Your task to perform on an android device: Go to Yahoo.com Image 0: 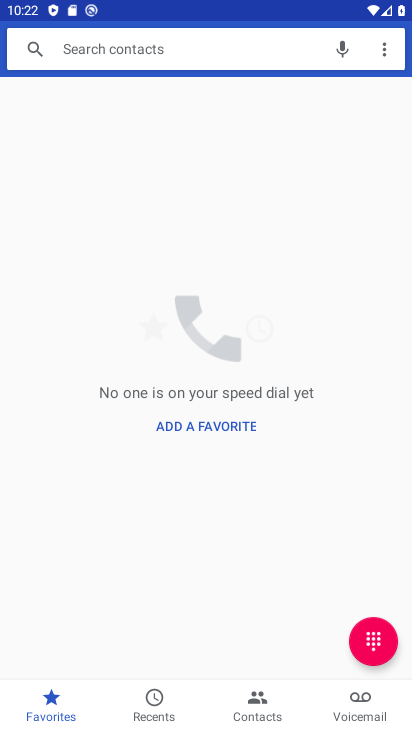
Step 0: press home button
Your task to perform on an android device: Go to Yahoo.com Image 1: 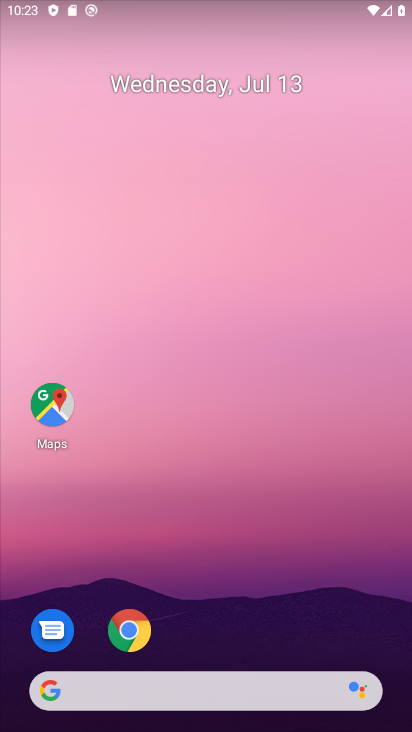
Step 1: click (124, 630)
Your task to perform on an android device: Go to Yahoo.com Image 2: 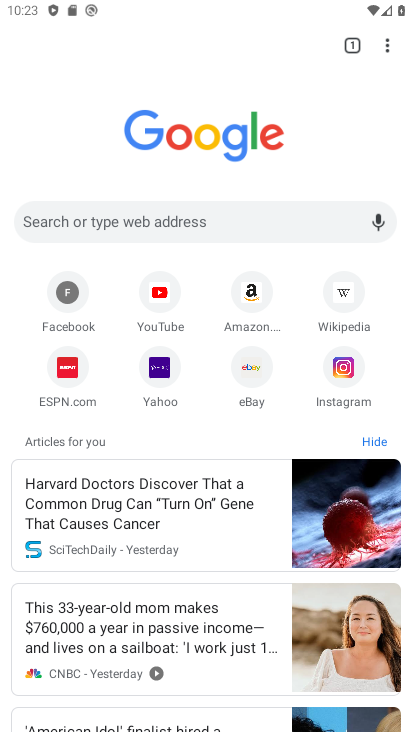
Step 2: click (162, 389)
Your task to perform on an android device: Go to Yahoo.com Image 3: 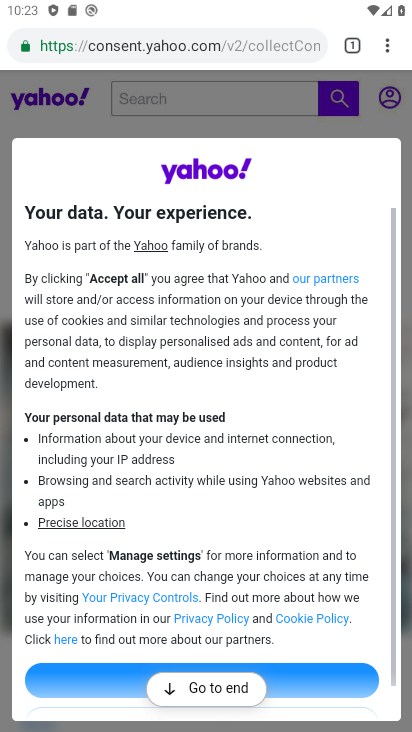
Step 3: task complete